Your task to perform on an android device: turn off location history Image 0: 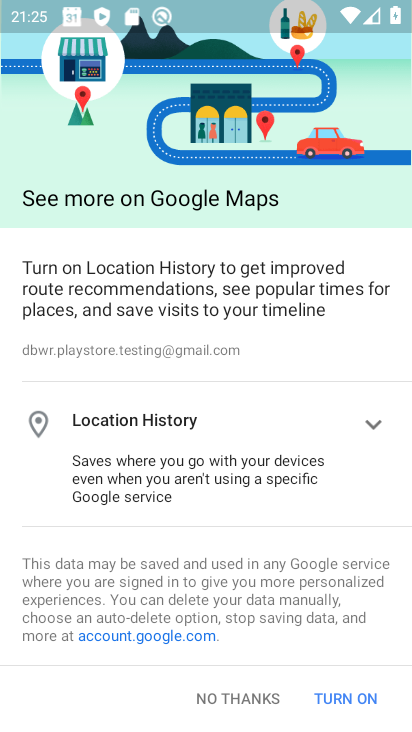
Step 0: click (253, 698)
Your task to perform on an android device: turn off location history Image 1: 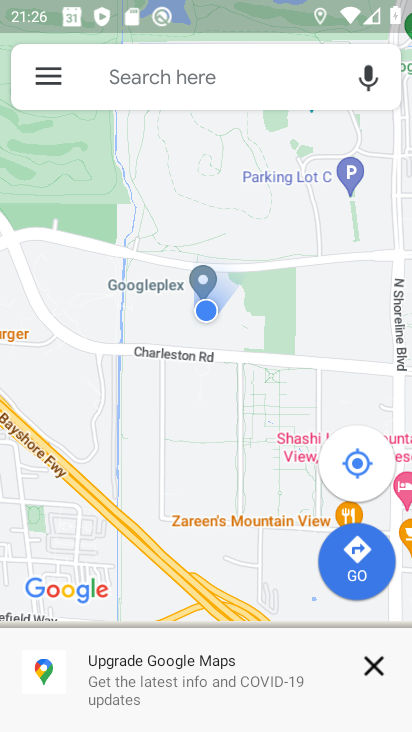
Step 1: click (54, 72)
Your task to perform on an android device: turn off location history Image 2: 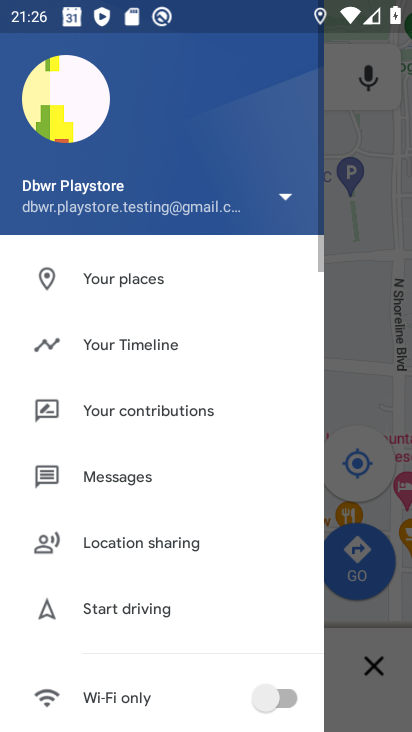
Step 2: drag from (151, 536) to (217, 138)
Your task to perform on an android device: turn off location history Image 3: 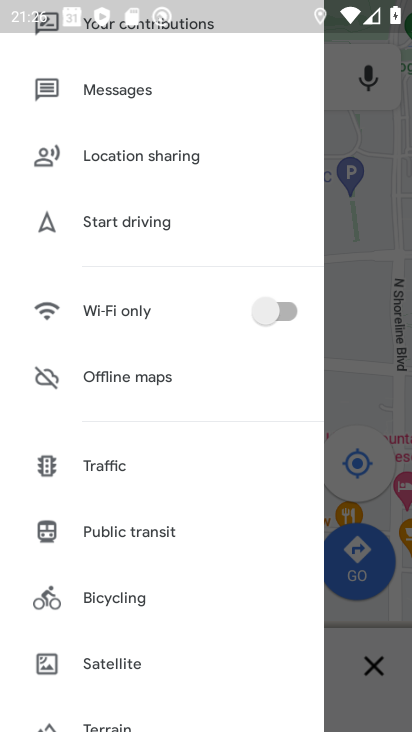
Step 3: drag from (132, 577) to (255, 166)
Your task to perform on an android device: turn off location history Image 4: 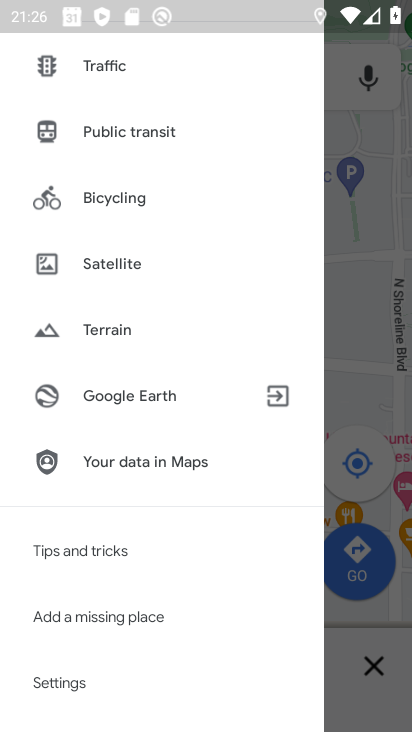
Step 4: click (65, 679)
Your task to perform on an android device: turn off location history Image 5: 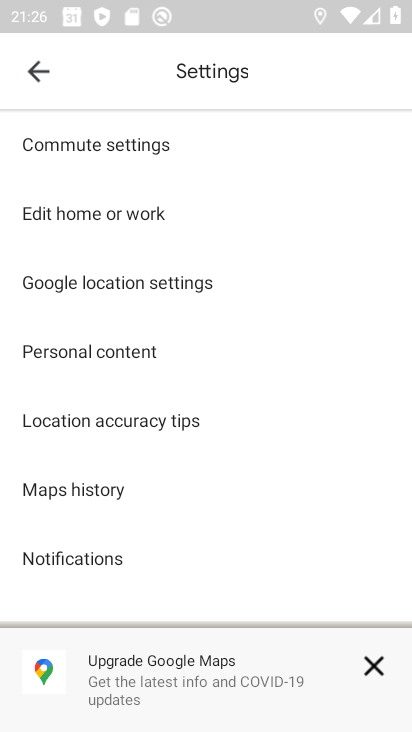
Step 5: click (91, 484)
Your task to perform on an android device: turn off location history Image 6: 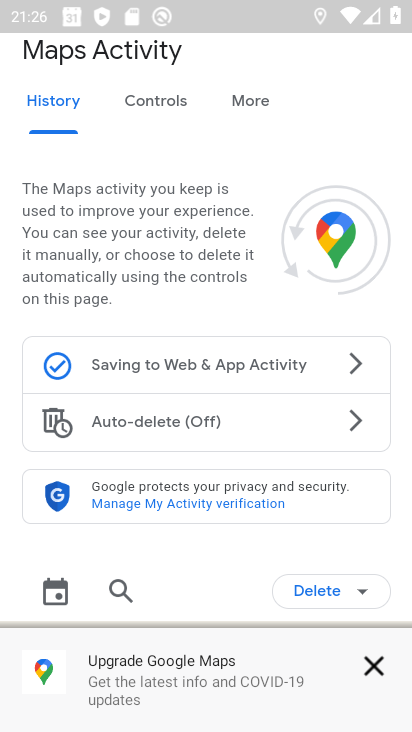
Step 6: click (363, 662)
Your task to perform on an android device: turn off location history Image 7: 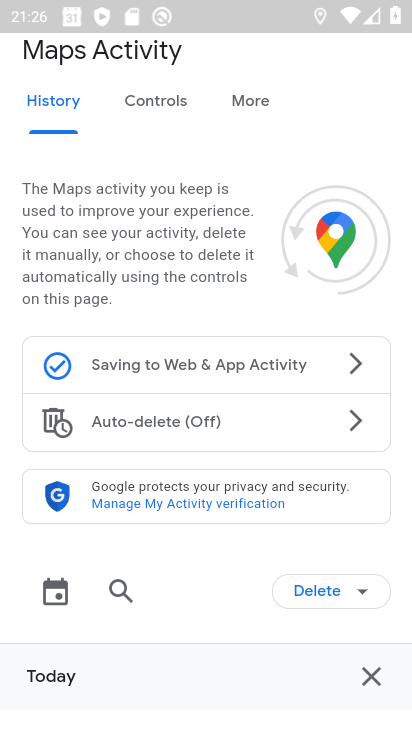
Step 7: drag from (195, 608) to (252, 576)
Your task to perform on an android device: turn off location history Image 8: 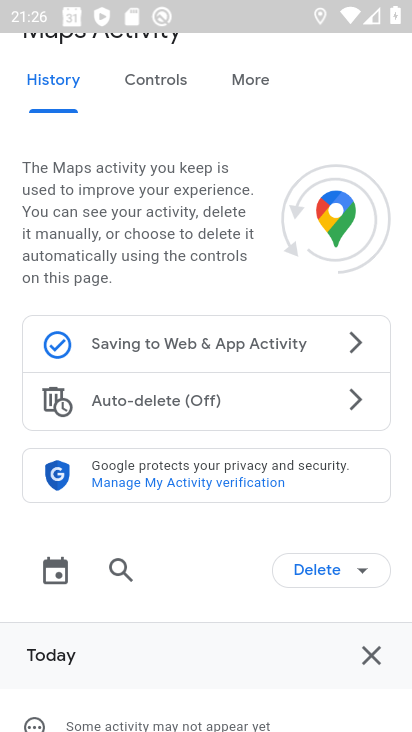
Step 8: press home button
Your task to perform on an android device: turn off location history Image 9: 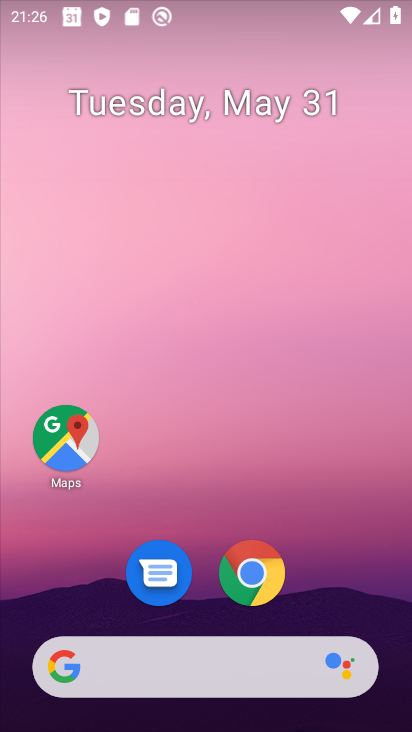
Step 9: drag from (357, 482) to (368, 72)
Your task to perform on an android device: turn off location history Image 10: 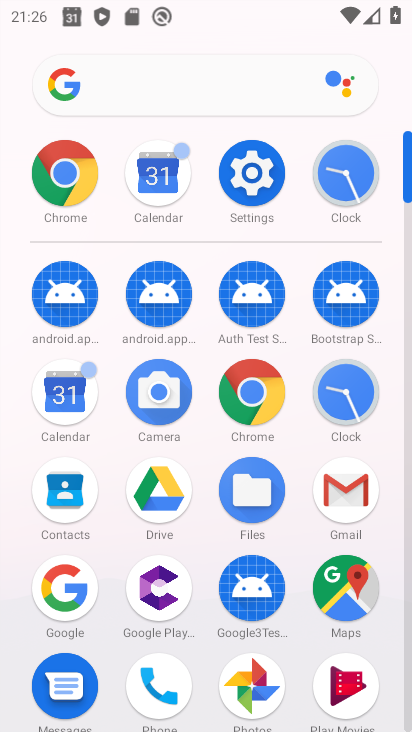
Step 10: click (265, 166)
Your task to perform on an android device: turn off location history Image 11: 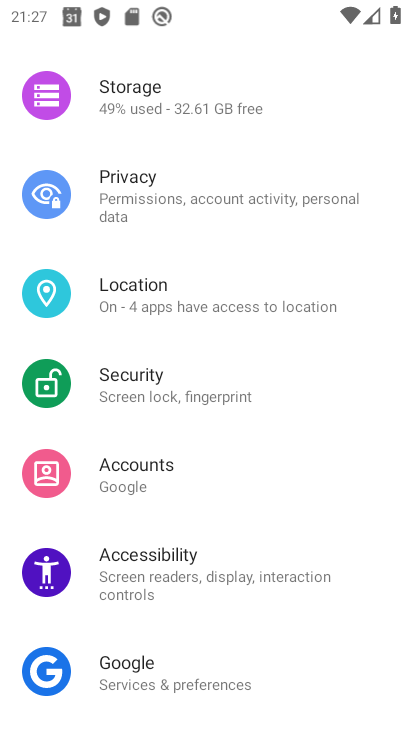
Step 11: drag from (247, 542) to (239, 575)
Your task to perform on an android device: turn off location history Image 12: 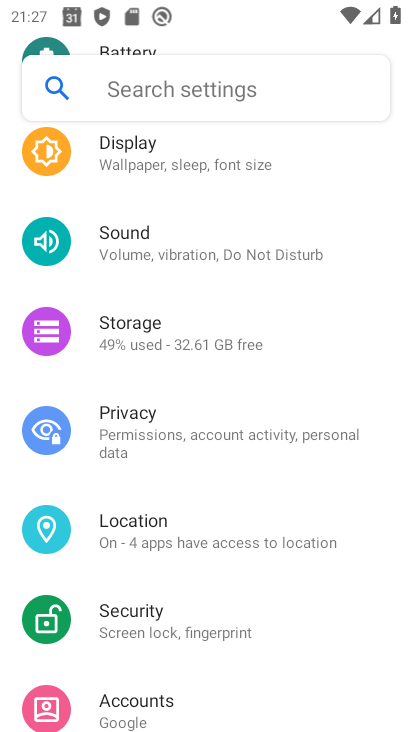
Step 12: click (196, 547)
Your task to perform on an android device: turn off location history Image 13: 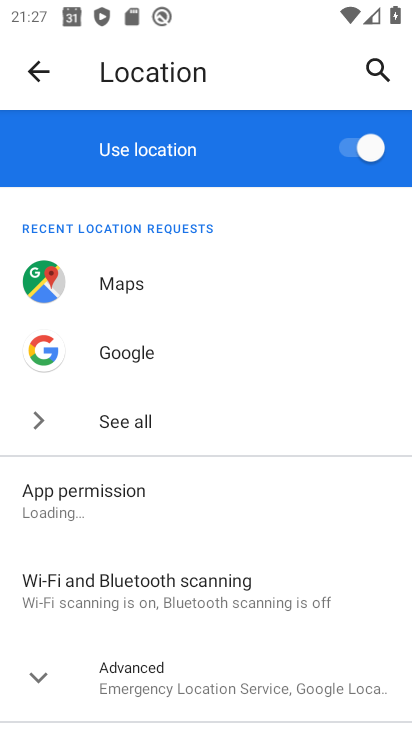
Step 13: click (184, 673)
Your task to perform on an android device: turn off location history Image 14: 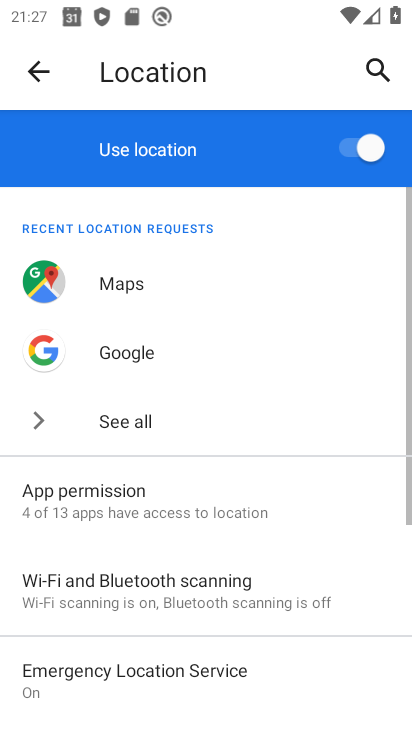
Step 14: drag from (205, 642) to (299, 206)
Your task to perform on an android device: turn off location history Image 15: 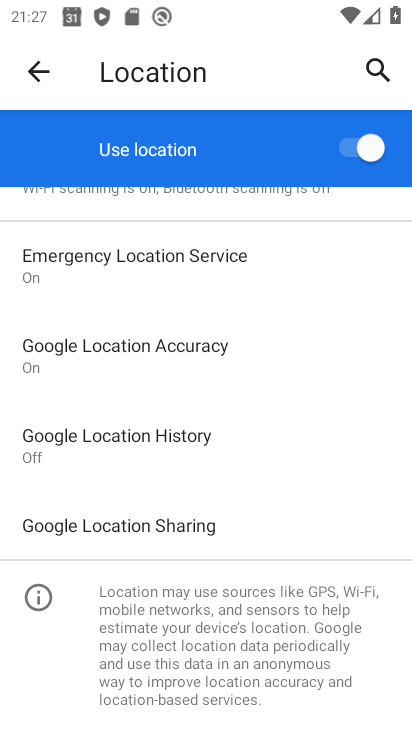
Step 15: click (152, 434)
Your task to perform on an android device: turn off location history Image 16: 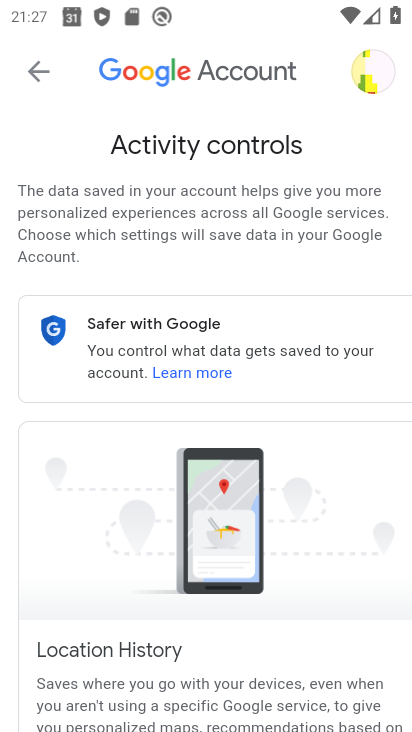
Step 16: drag from (280, 540) to (309, 57)
Your task to perform on an android device: turn off location history Image 17: 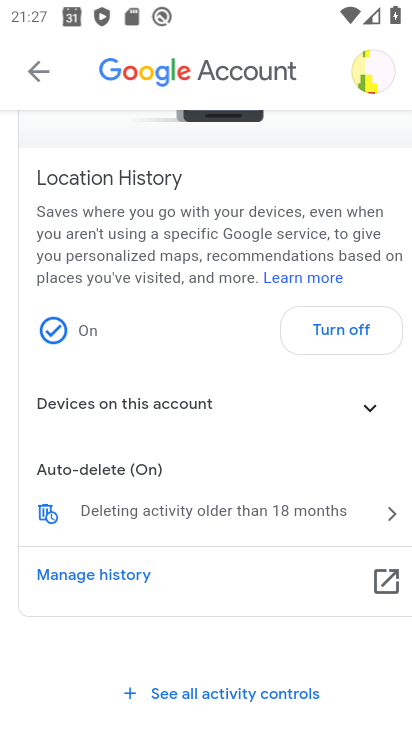
Step 17: click (349, 345)
Your task to perform on an android device: turn off location history Image 18: 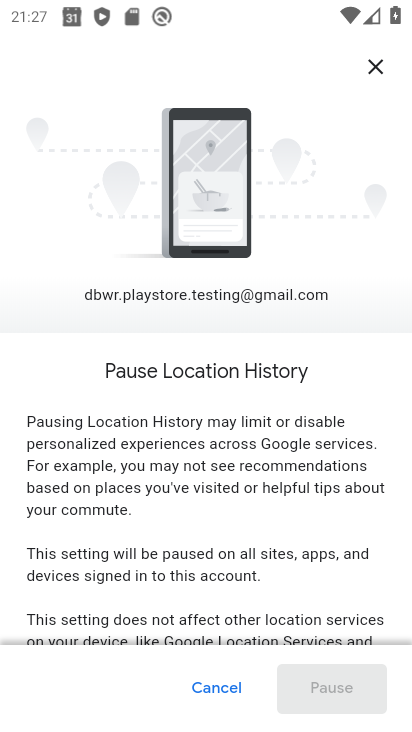
Step 18: drag from (307, 576) to (315, 138)
Your task to perform on an android device: turn off location history Image 19: 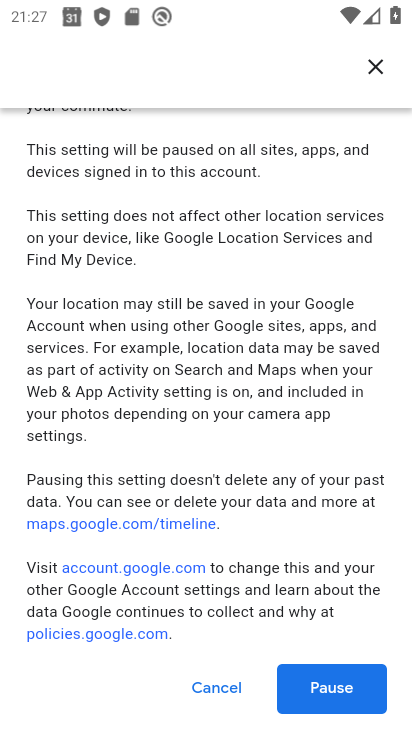
Step 19: click (317, 687)
Your task to perform on an android device: turn off location history Image 20: 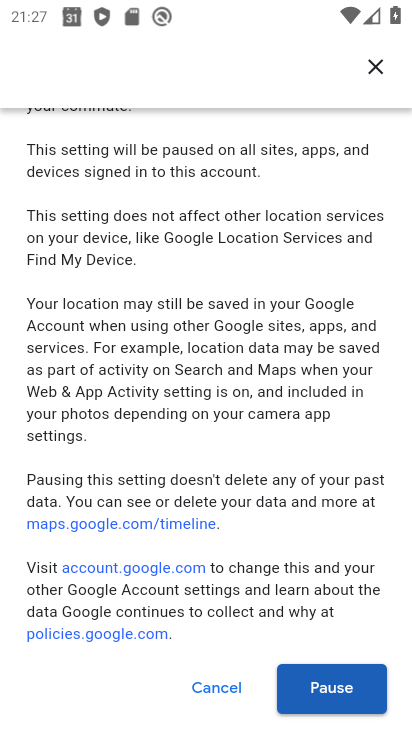
Step 20: click (331, 693)
Your task to perform on an android device: turn off location history Image 21: 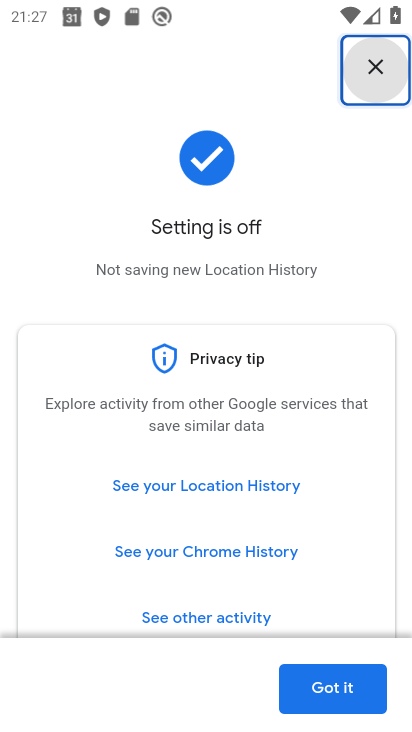
Step 21: task complete